Your task to perform on an android device: Go to Google Image 0: 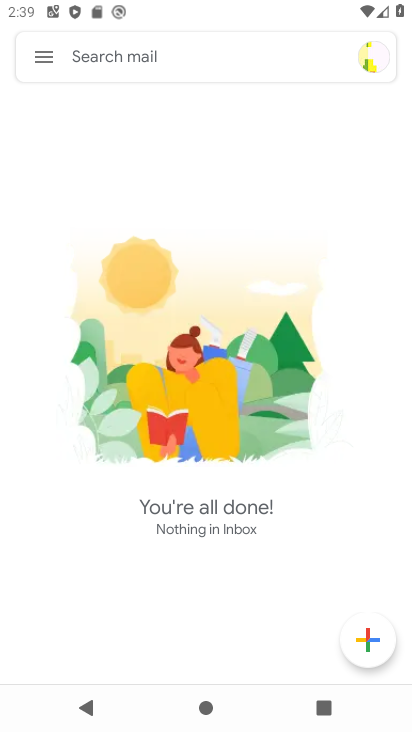
Step 0: press home button
Your task to perform on an android device: Go to Google Image 1: 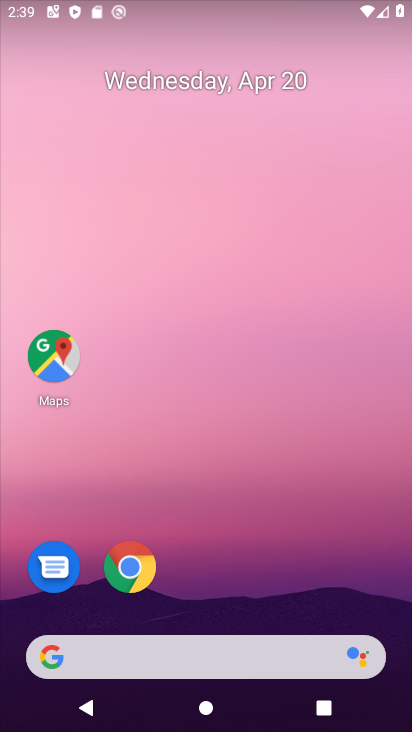
Step 1: click (187, 647)
Your task to perform on an android device: Go to Google Image 2: 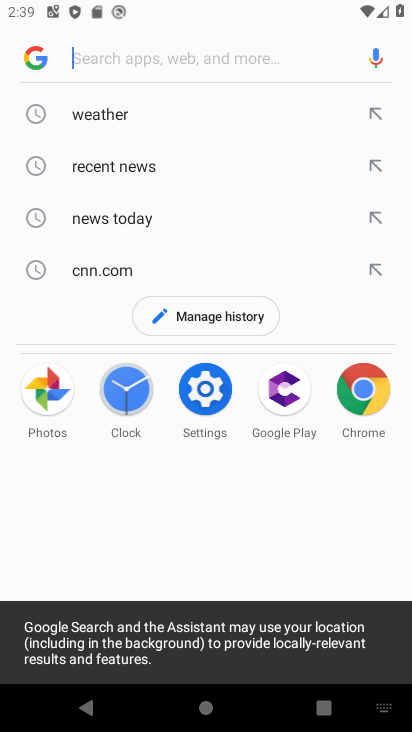
Step 2: click (26, 50)
Your task to perform on an android device: Go to Google Image 3: 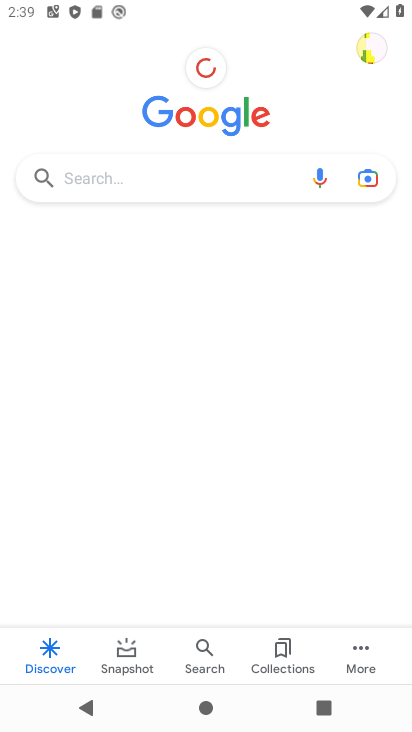
Step 3: task complete